Your task to perform on an android device: see sites visited before in the chrome app Image 0: 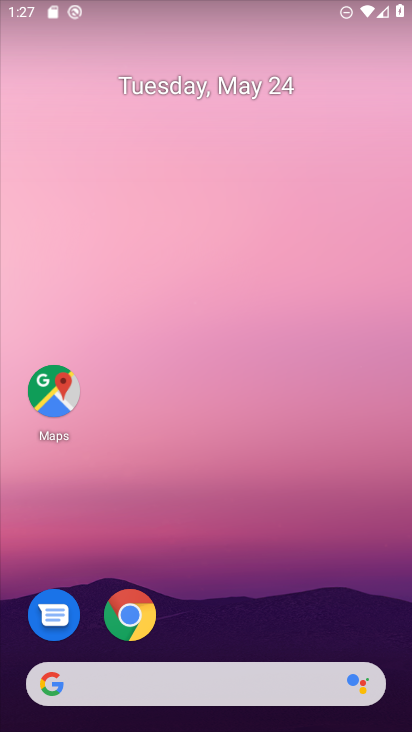
Step 0: click (136, 623)
Your task to perform on an android device: see sites visited before in the chrome app Image 1: 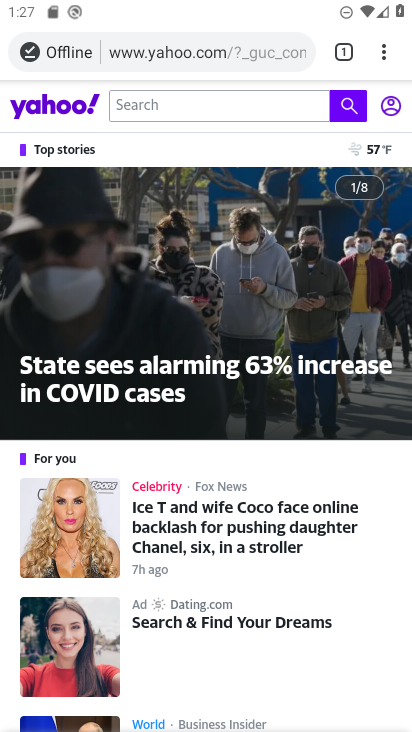
Step 1: task complete